Your task to perform on an android device: find snoozed emails in the gmail app Image 0: 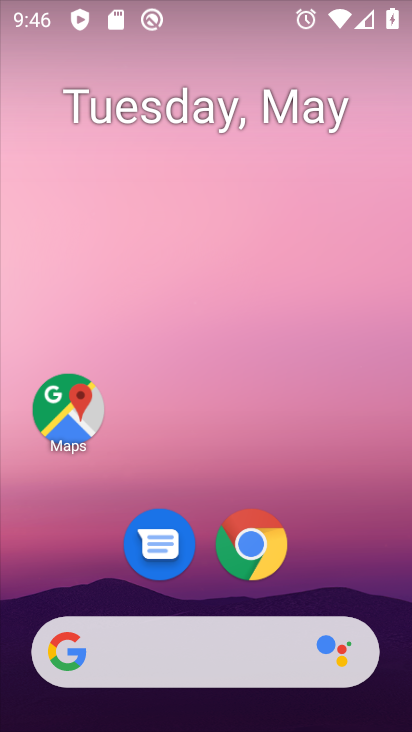
Step 0: drag from (362, 573) to (356, 258)
Your task to perform on an android device: find snoozed emails in the gmail app Image 1: 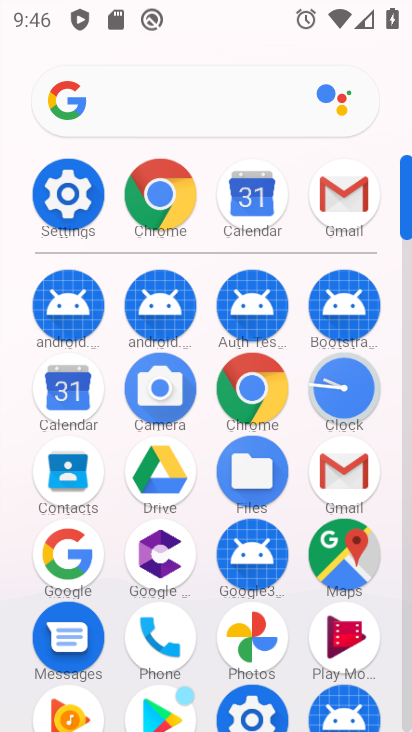
Step 1: click (345, 479)
Your task to perform on an android device: find snoozed emails in the gmail app Image 2: 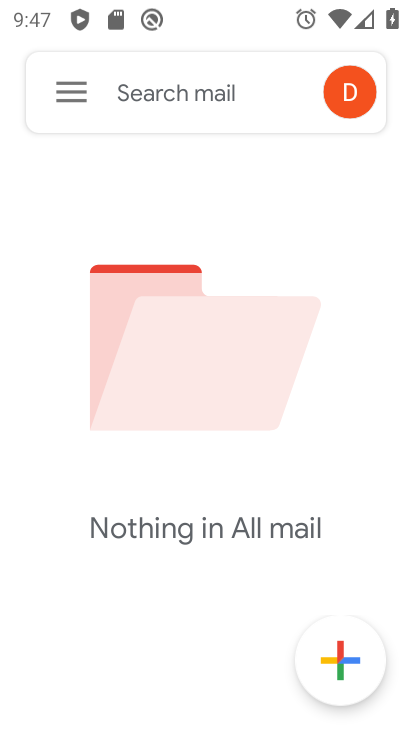
Step 2: click (53, 85)
Your task to perform on an android device: find snoozed emails in the gmail app Image 3: 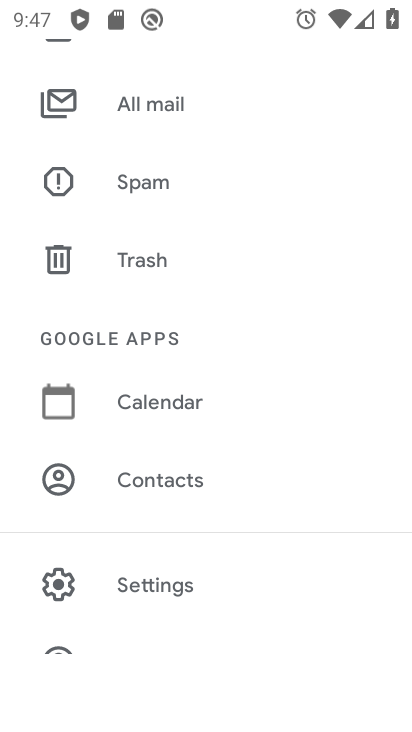
Step 3: drag from (258, 299) to (257, 586)
Your task to perform on an android device: find snoozed emails in the gmail app Image 4: 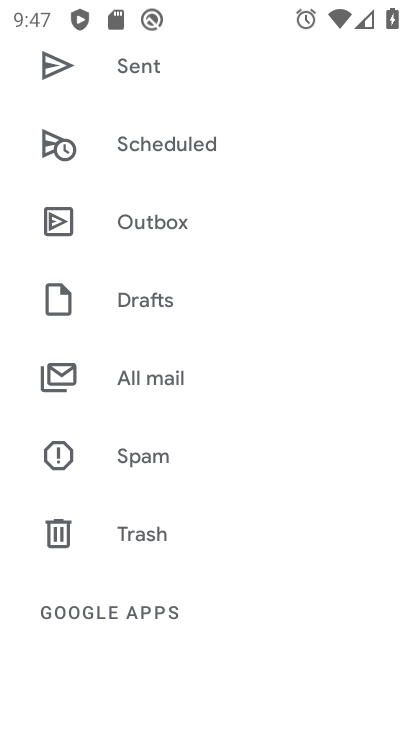
Step 4: drag from (241, 282) to (221, 520)
Your task to perform on an android device: find snoozed emails in the gmail app Image 5: 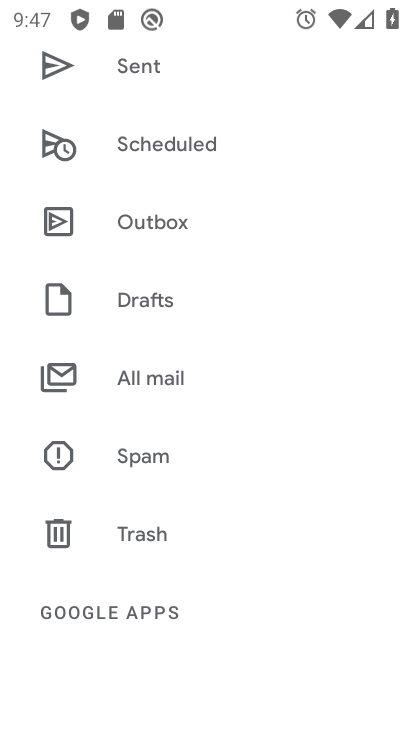
Step 5: drag from (229, 302) to (267, 559)
Your task to perform on an android device: find snoozed emails in the gmail app Image 6: 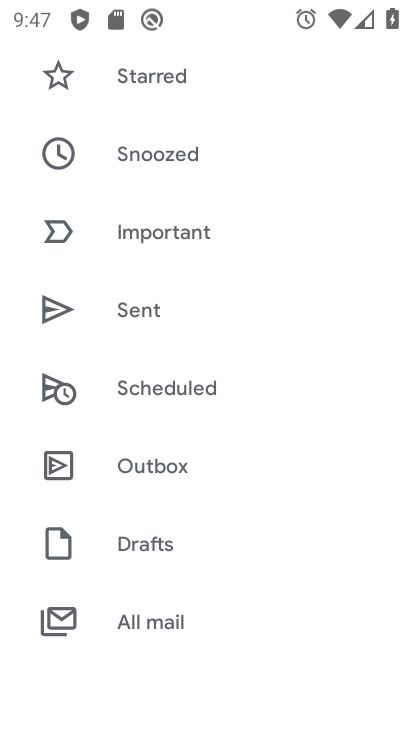
Step 6: click (189, 167)
Your task to perform on an android device: find snoozed emails in the gmail app Image 7: 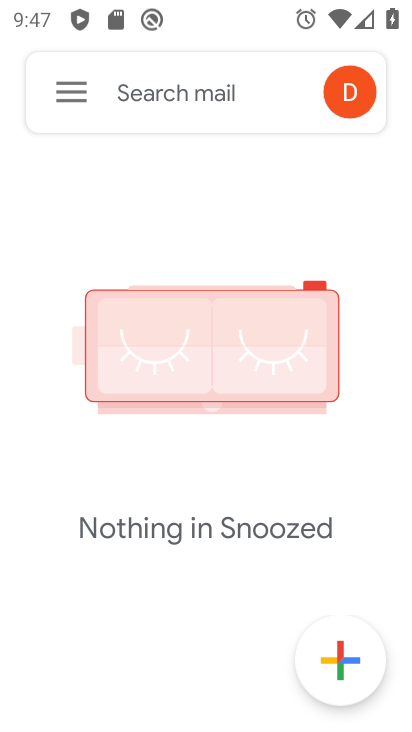
Step 7: task complete